Your task to perform on an android device: turn on the 12-hour format for clock Image 0: 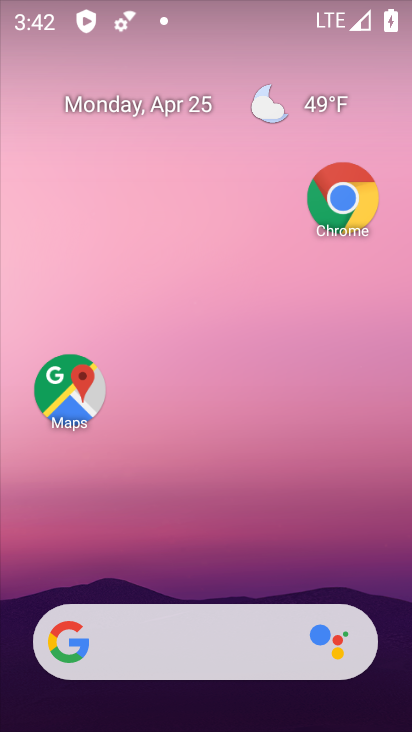
Step 0: press home button
Your task to perform on an android device: turn on the 12-hour format for clock Image 1: 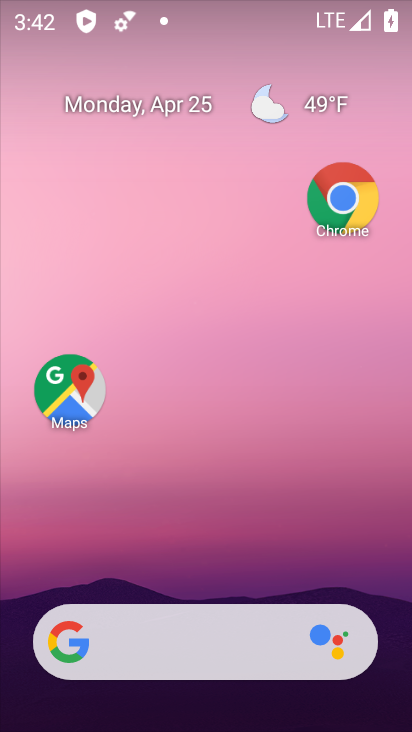
Step 1: drag from (135, 654) to (329, 191)
Your task to perform on an android device: turn on the 12-hour format for clock Image 2: 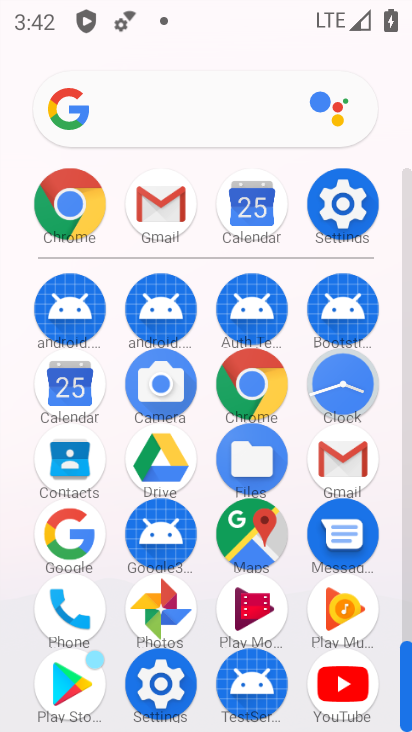
Step 2: click (342, 401)
Your task to perform on an android device: turn on the 12-hour format for clock Image 3: 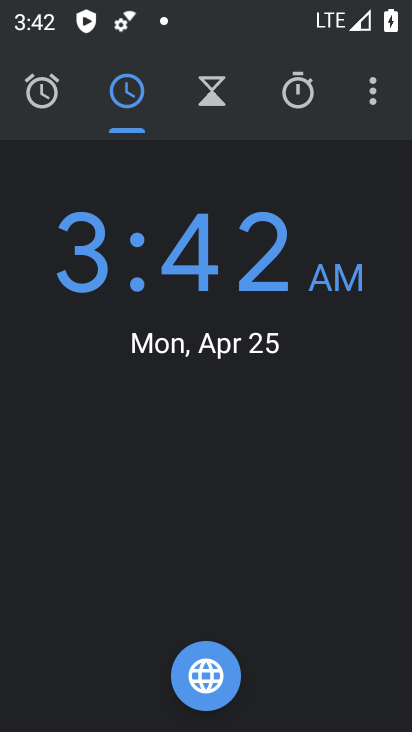
Step 3: click (374, 98)
Your task to perform on an android device: turn on the 12-hour format for clock Image 4: 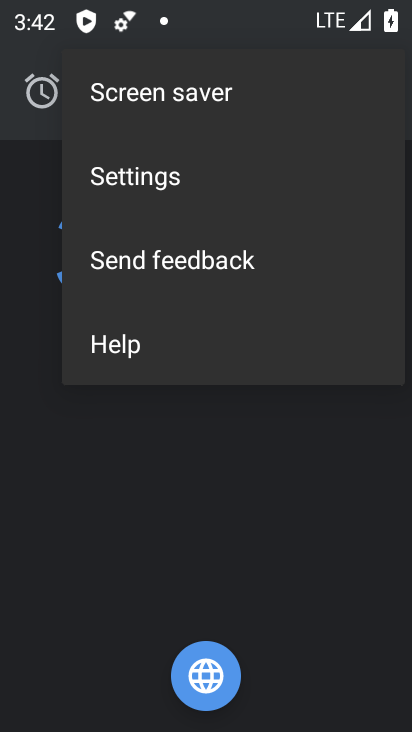
Step 4: click (159, 170)
Your task to perform on an android device: turn on the 12-hour format for clock Image 5: 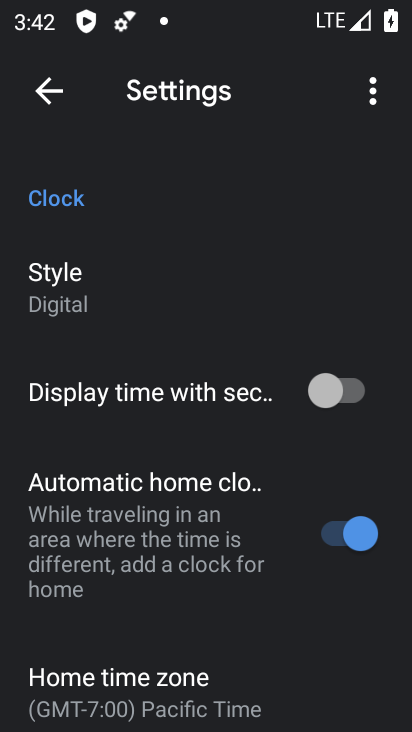
Step 5: drag from (167, 616) to (336, 125)
Your task to perform on an android device: turn on the 12-hour format for clock Image 6: 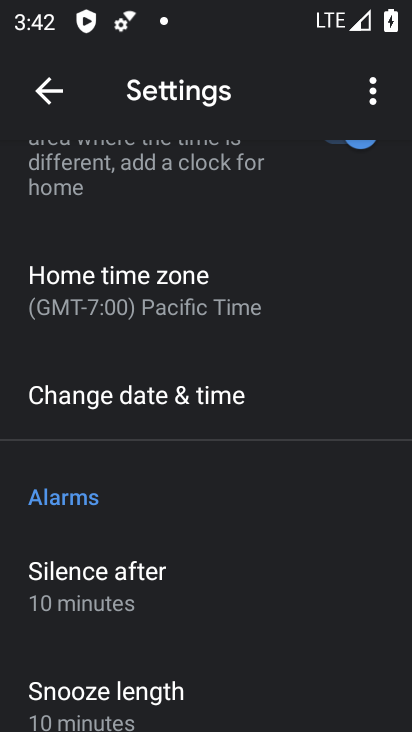
Step 6: click (147, 405)
Your task to perform on an android device: turn on the 12-hour format for clock Image 7: 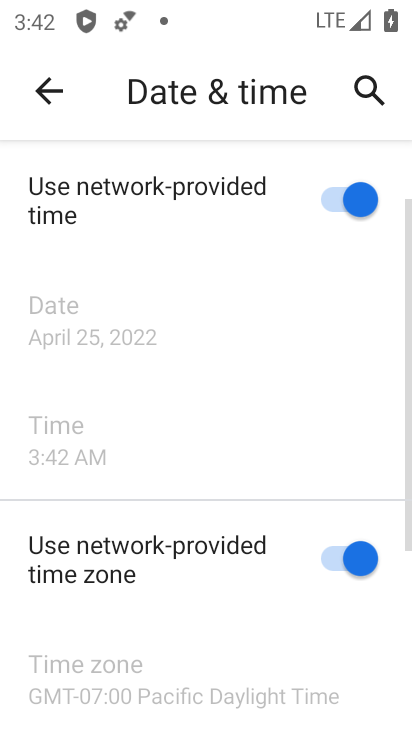
Step 7: task complete